Your task to perform on an android device: Show me popular games on the Play Store Image 0: 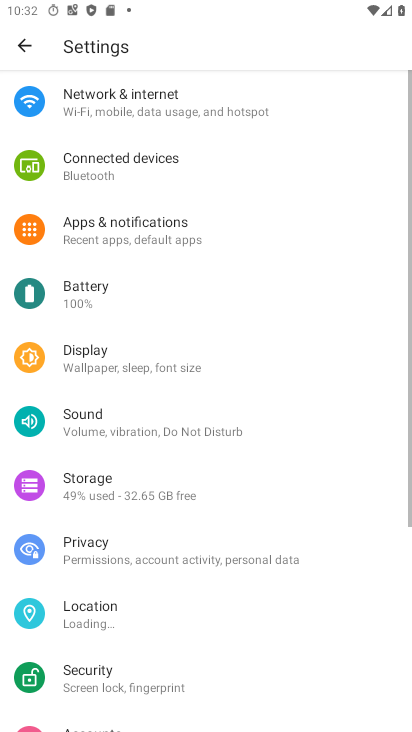
Step 0: press home button
Your task to perform on an android device: Show me popular games on the Play Store Image 1: 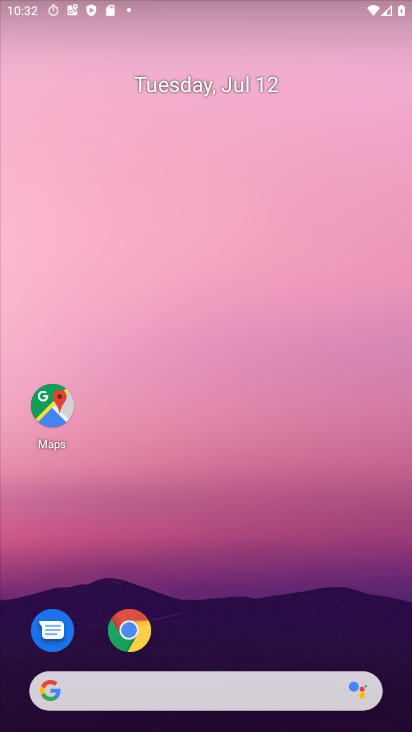
Step 1: drag from (218, 607) to (262, 58)
Your task to perform on an android device: Show me popular games on the Play Store Image 2: 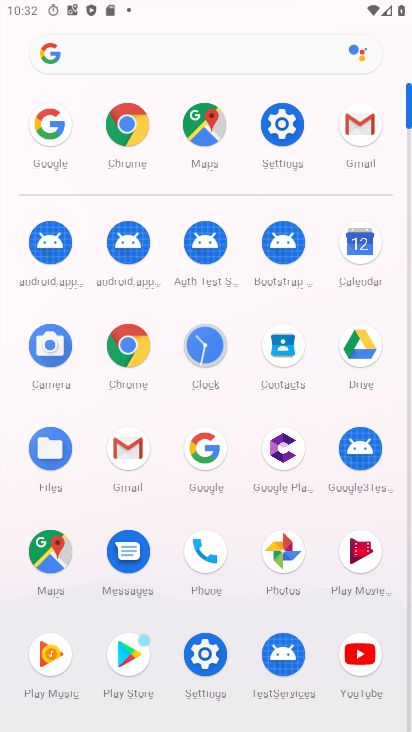
Step 2: click (131, 654)
Your task to perform on an android device: Show me popular games on the Play Store Image 3: 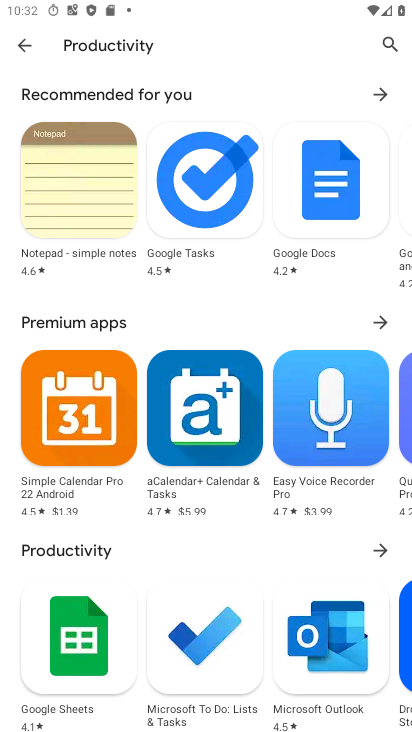
Step 3: drag from (201, 276) to (243, 564)
Your task to perform on an android device: Show me popular games on the Play Store Image 4: 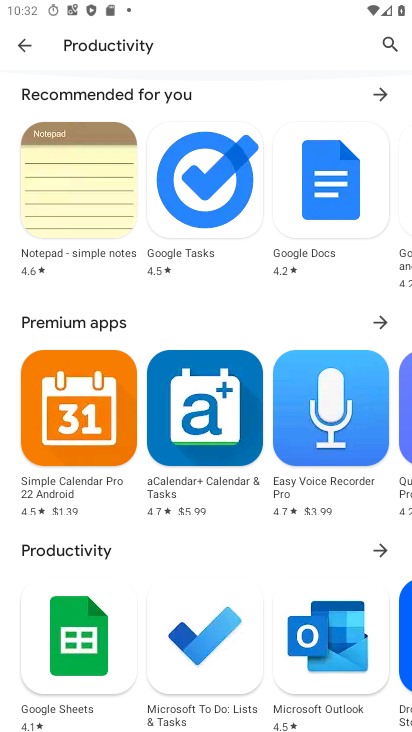
Step 4: drag from (175, 564) to (156, 61)
Your task to perform on an android device: Show me popular games on the Play Store Image 5: 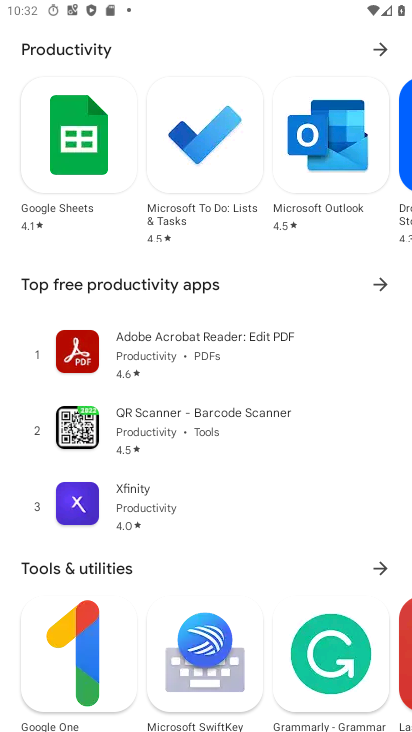
Step 5: drag from (195, 518) to (227, 695)
Your task to perform on an android device: Show me popular games on the Play Store Image 6: 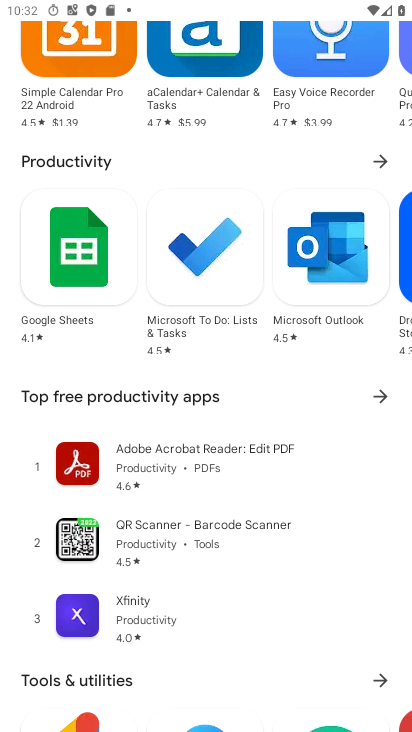
Step 6: press back button
Your task to perform on an android device: Show me popular games on the Play Store Image 7: 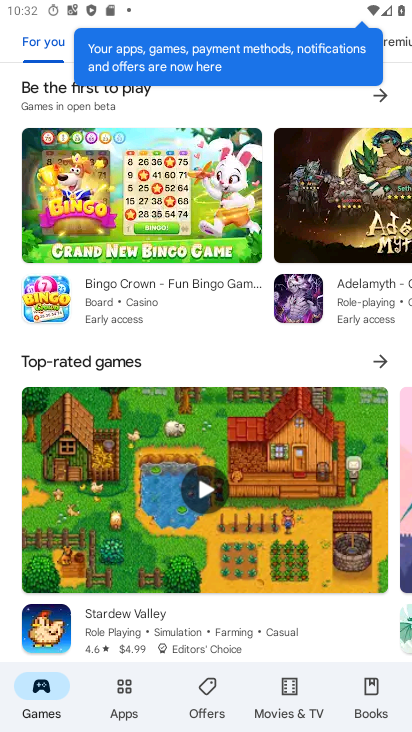
Step 7: drag from (297, 595) to (291, 166)
Your task to perform on an android device: Show me popular games on the Play Store Image 8: 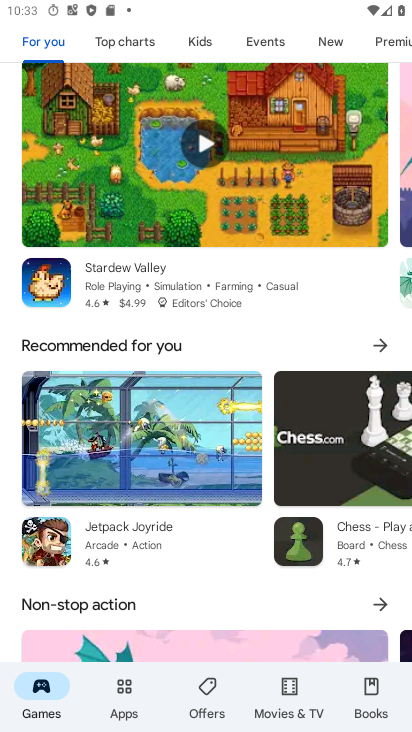
Step 8: drag from (183, 595) to (215, 140)
Your task to perform on an android device: Show me popular games on the Play Store Image 9: 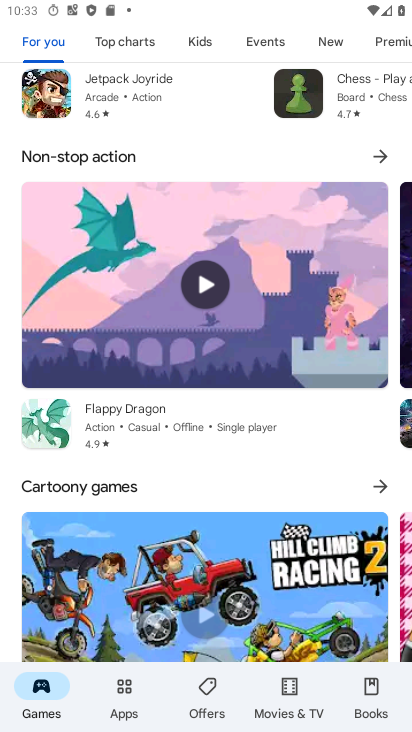
Step 9: click (233, 615)
Your task to perform on an android device: Show me popular games on the Play Store Image 10: 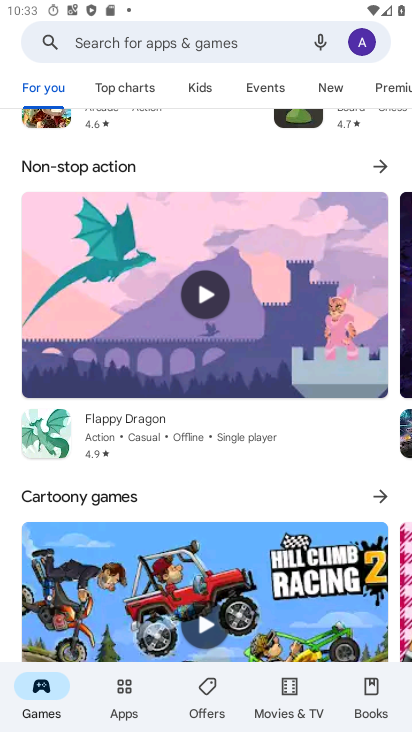
Step 10: task complete